Your task to perform on an android device: turn off picture-in-picture Image 0: 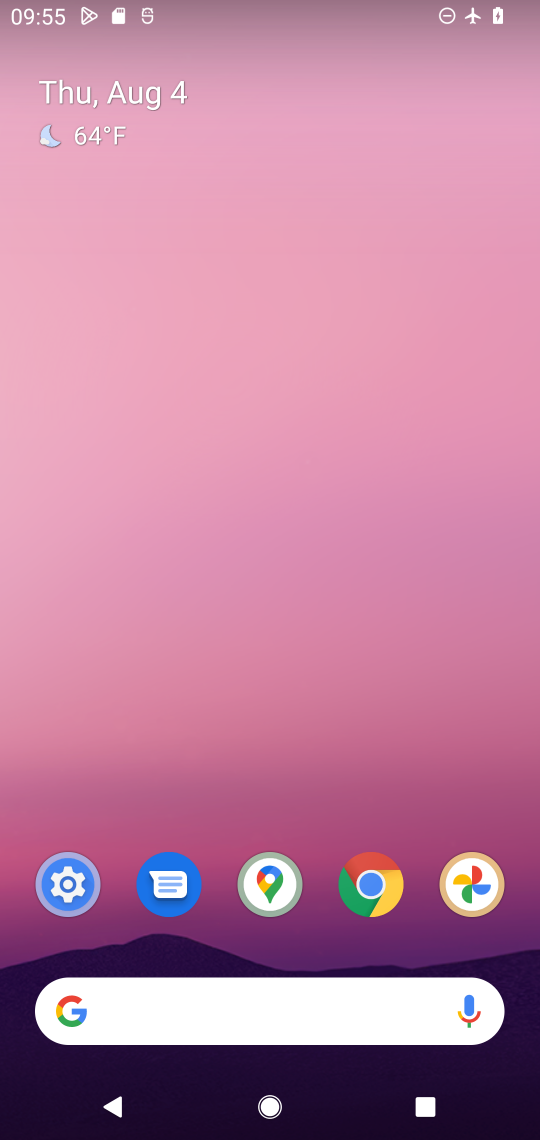
Step 0: click (379, 883)
Your task to perform on an android device: turn off picture-in-picture Image 1: 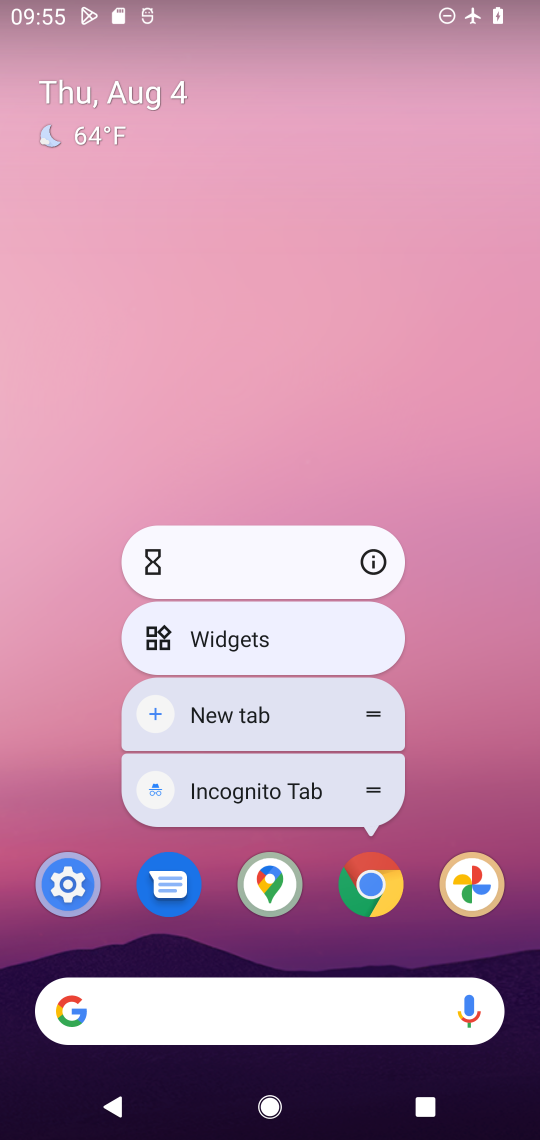
Step 1: click (368, 554)
Your task to perform on an android device: turn off picture-in-picture Image 2: 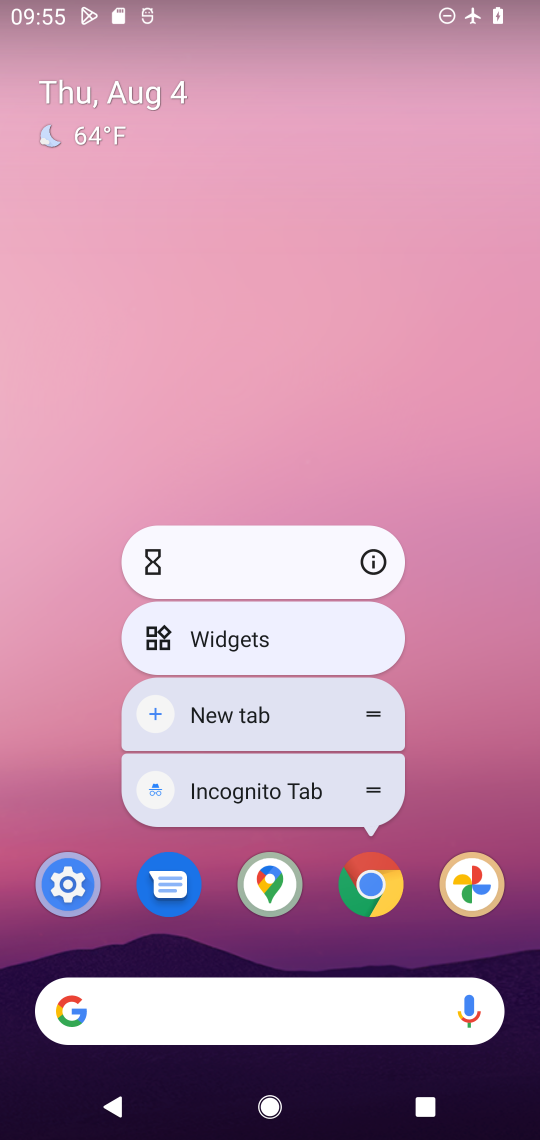
Step 2: click (366, 557)
Your task to perform on an android device: turn off picture-in-picture Image 3: 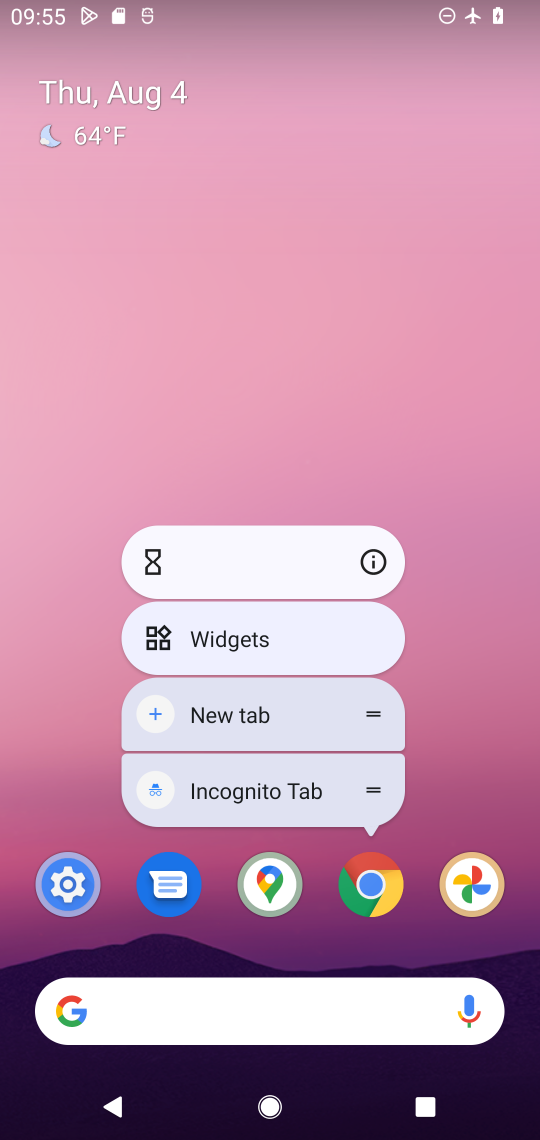
Step 3: click (366, 557)
Your task to perform on an android device: turn off picture-in-picture Image 4: 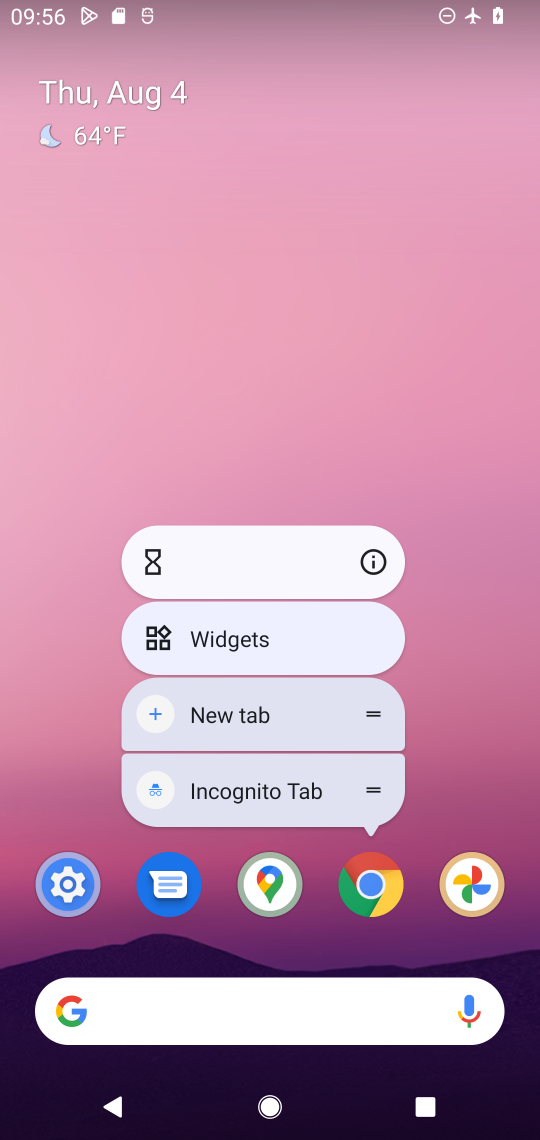
Step 4: click (362, 559)
Your task to perform on an android device: turn off picture-in-picture Image 5: 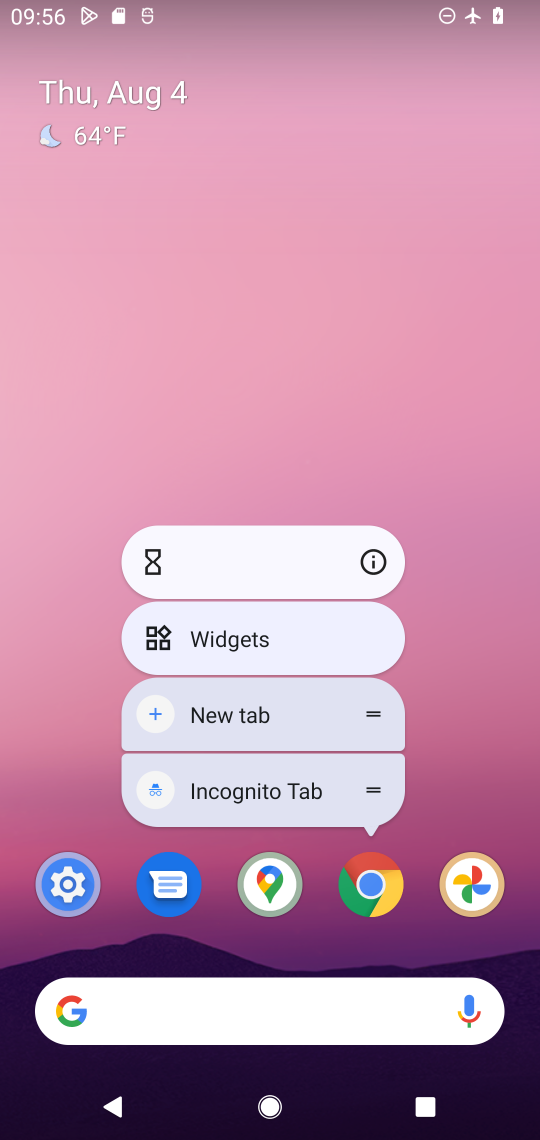
Step 5: click (364, 563)
Your task to perform on an android device: turn off picture-in-picture Image 6: 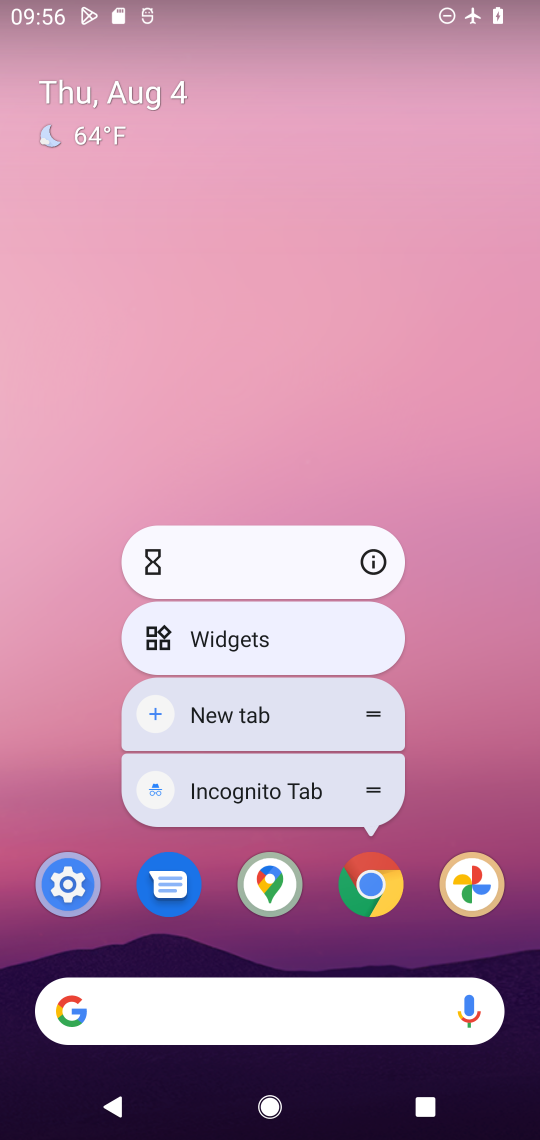
Step 6: click (375, 549)
Your task to perform on an android device: turn off picture-in-picture Image 7: 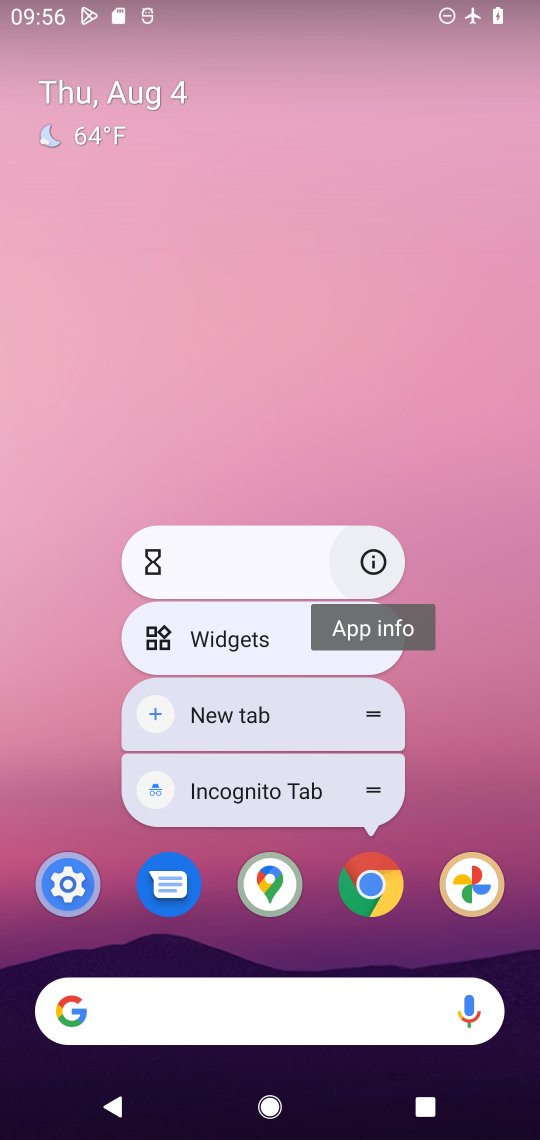
Step 7: click (375, 549)
Your task to perform on an android device: turn off picture-in-picture Image 8: 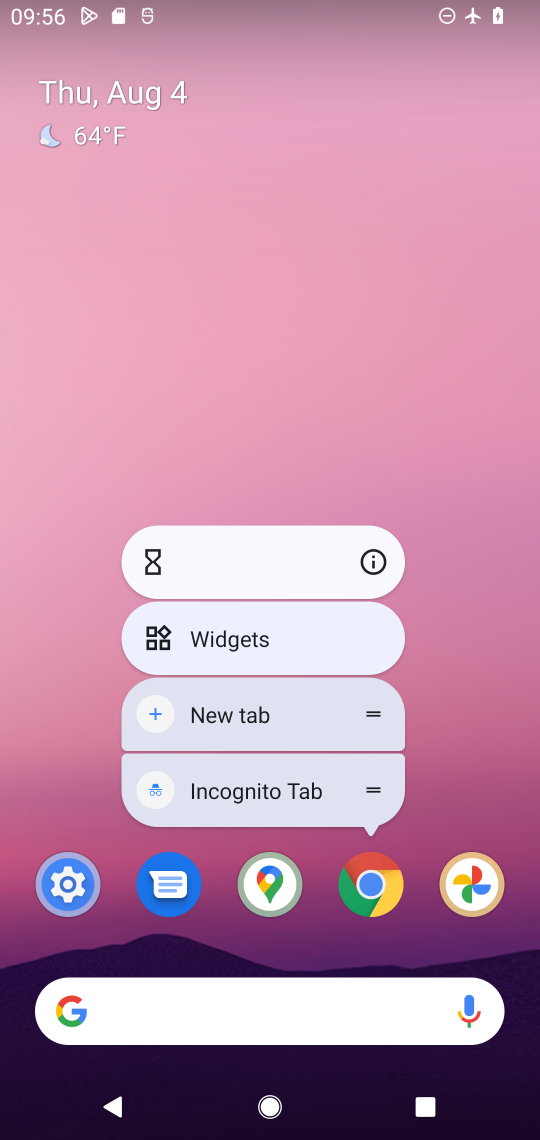
Step 8: click (375, 549)
Your task to perform on an android device: turn off picture-in-picture Image 9: 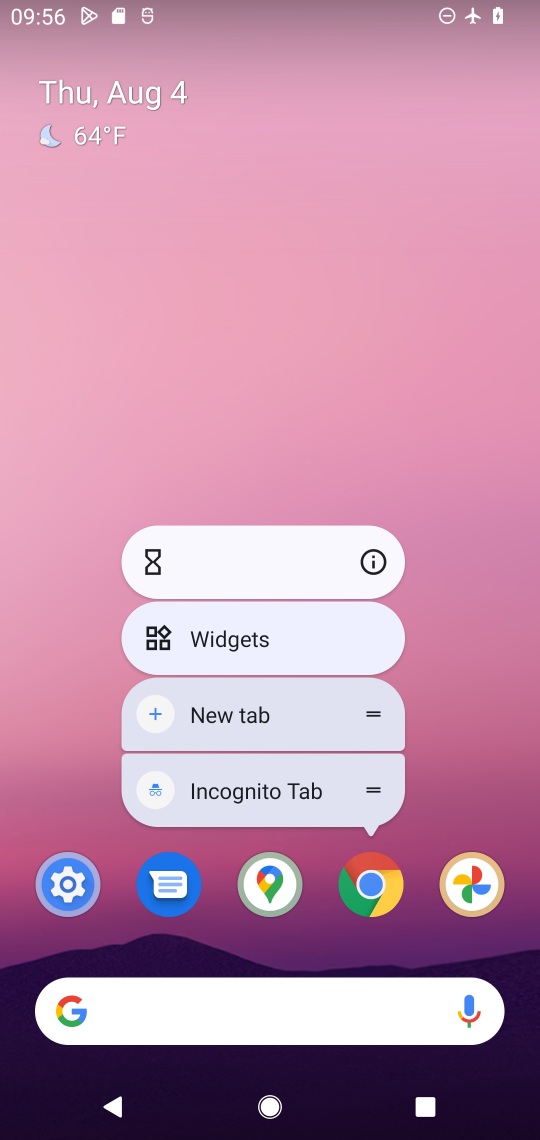
Step 9: click (375, 549)
Your task to perform on an android device: turn off picture-in-picture Image 10: 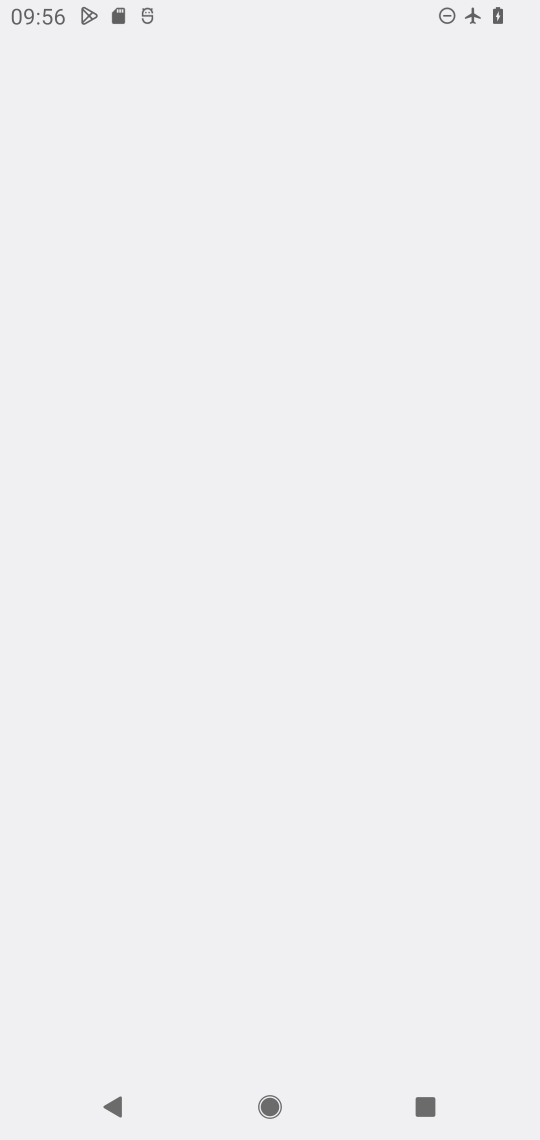
Step 10: click (375, 549)
Your task to perform on an android device: turn off picture-in-picture Image 11: 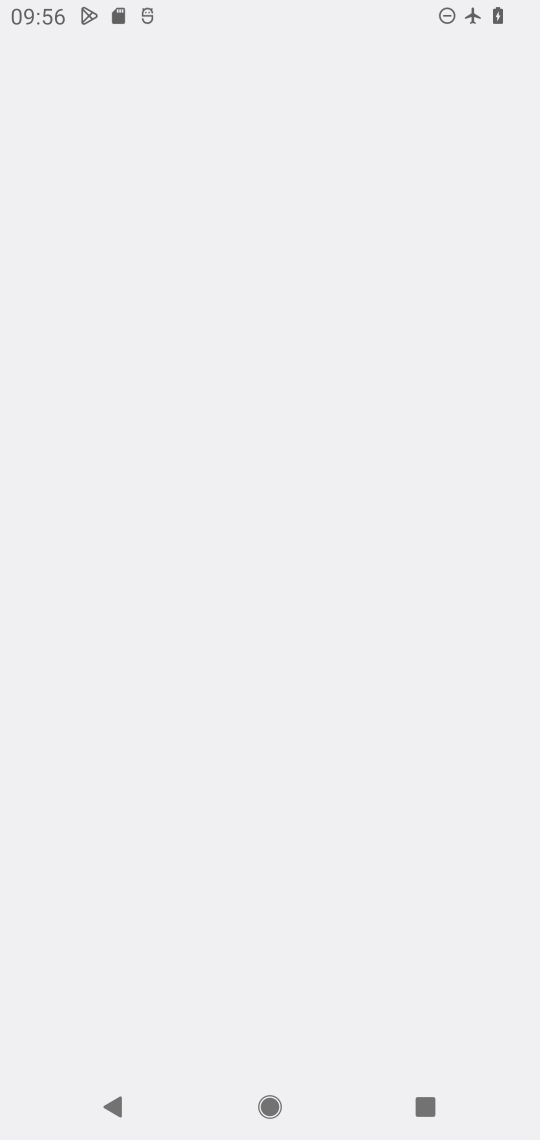
Step 11: click (375, 549)
Your task to perform on an android device: turn off picture-in-picture Image 12: 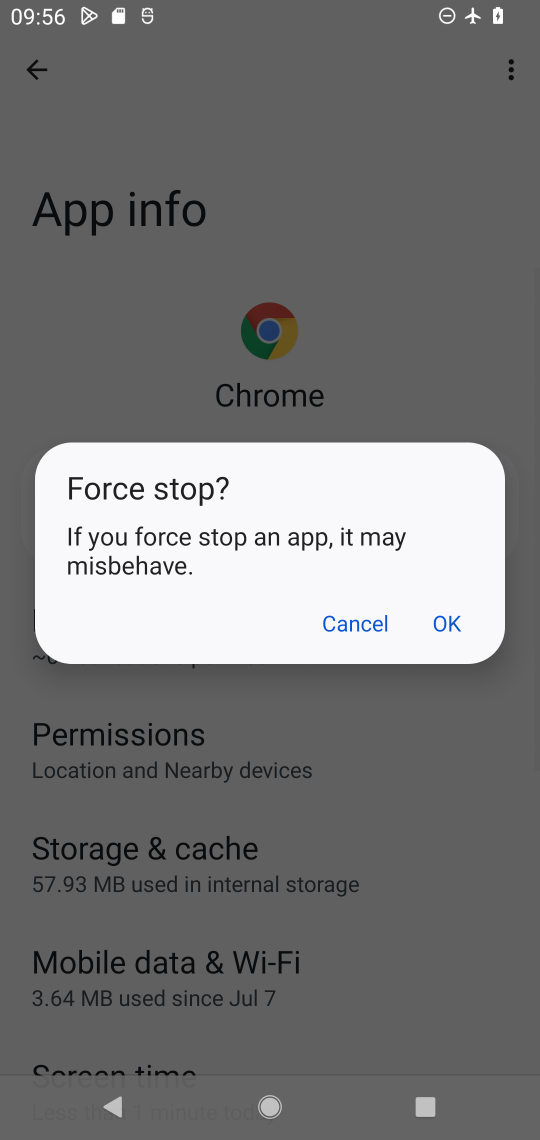
Step 12: click (376, 622)
Your task to perform on an android device: turn off picture-in-picture Image 13: 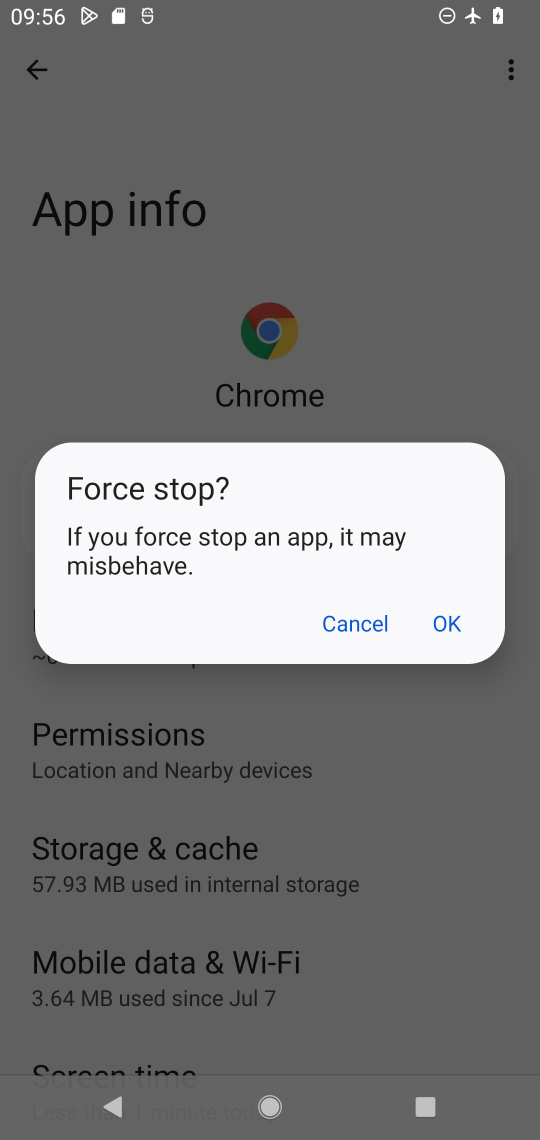
Step 13: drag from (355, 1010) to (456, 89)
Your task to perform on an android device: turn off picture-in-picture Image 14: 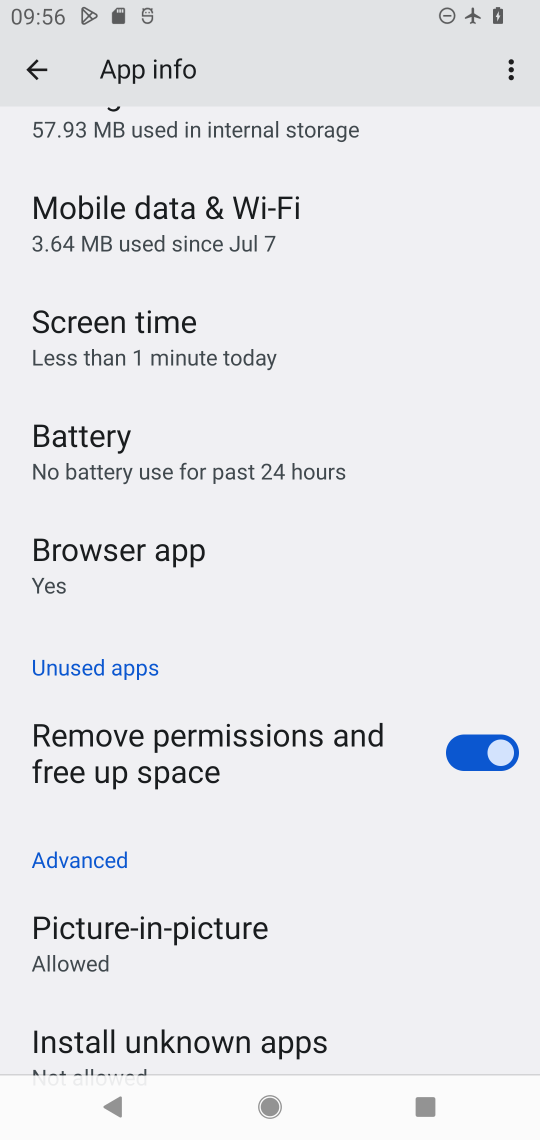
Step 14: drag from (301, 899) to (471, 19)
Your task to perform on an android device: turn off picture-in-picture Image 15: 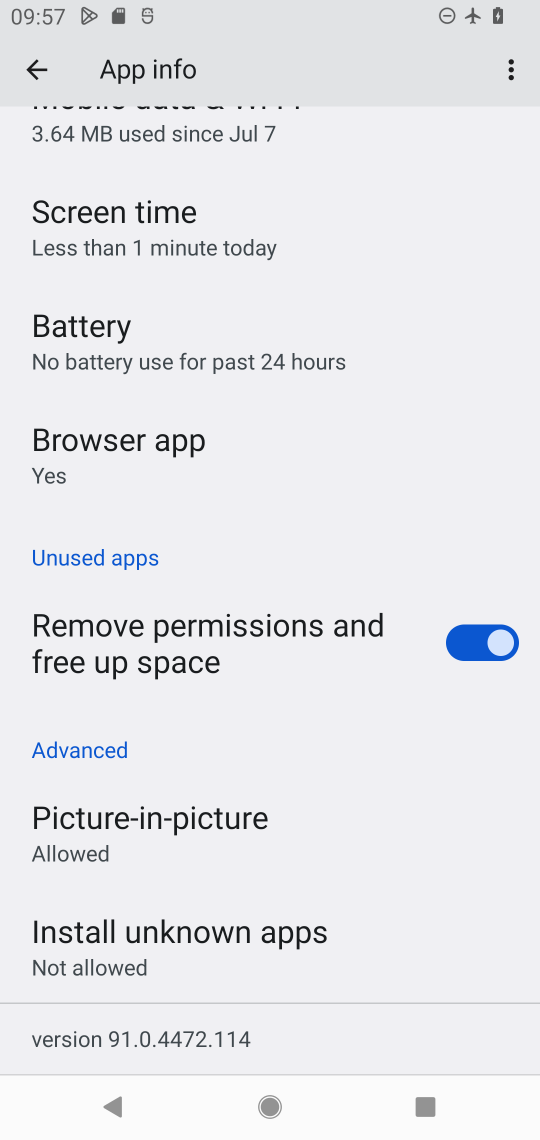
Step 15: click (242, 801)
Your task to perform on an android device: turn off picture-in-picture Image 16: 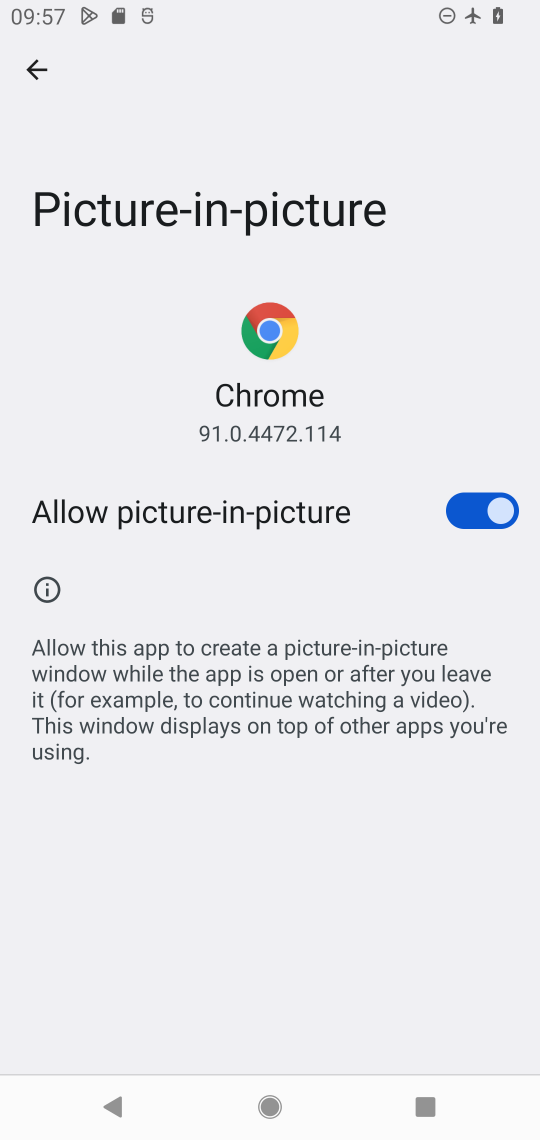
Step 16: click (496, 508)
Your task to perform on an android device: turn off picture-in-picture Image 17: 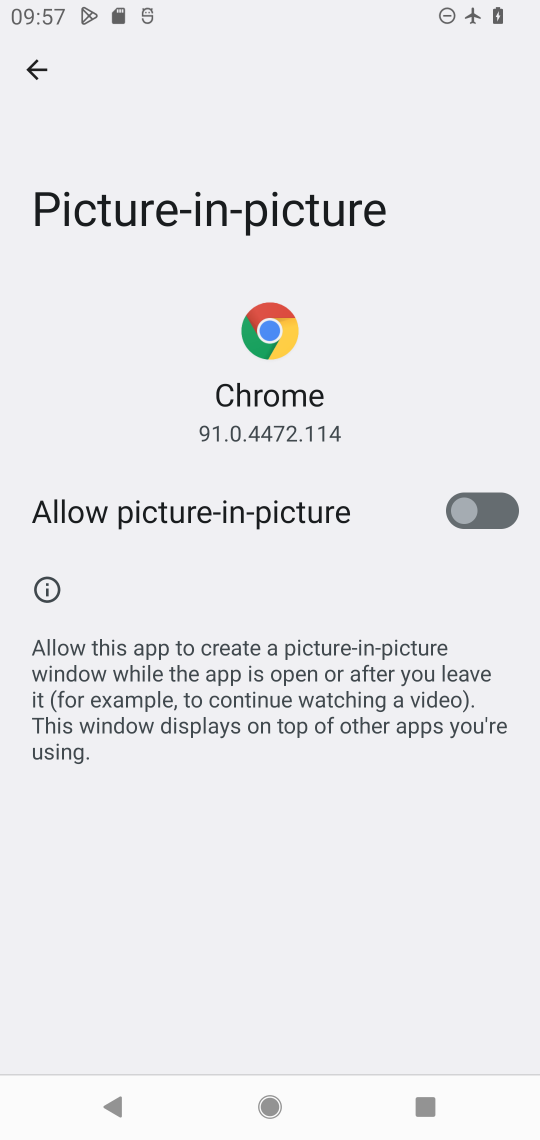
Step 17: task complete